Your task to perform on an android device: Open the web browser Image 0: 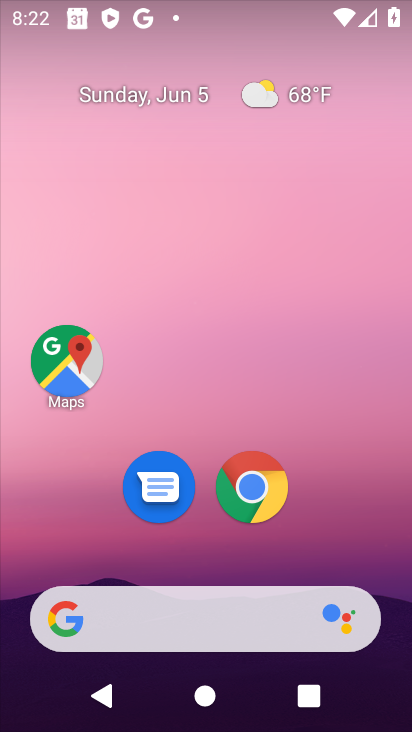
Step 0: click (236, 486)
Your task to perform on an android device: Open the web browser Image 1: 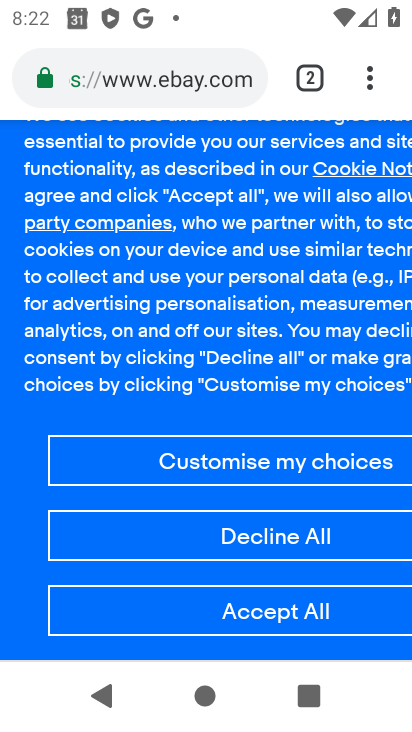
Step 1: task complete